Your task to perform on an android device: Play the last video I watched on Youtube Image 0: 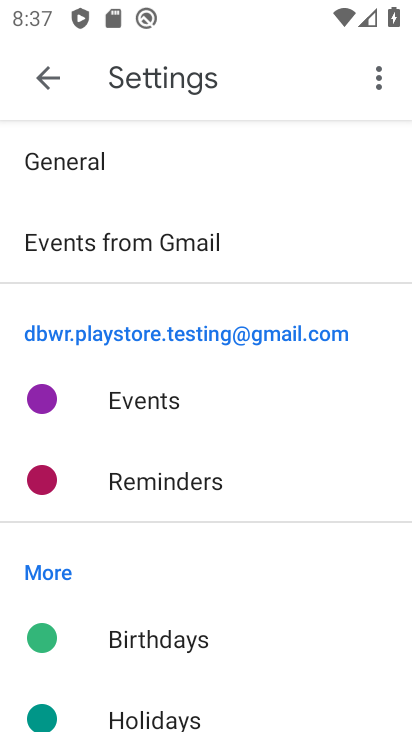
Step 0: press back button
Your task to perform on an android device: Play the last video I watched on Youtube Image 1: 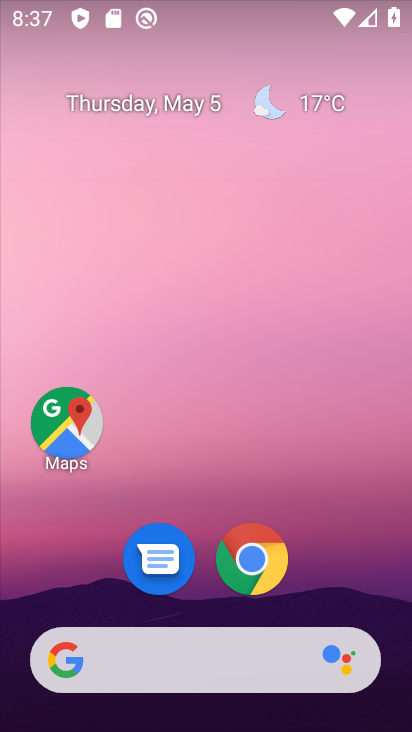
Step 1: drag from (238, 506) to (293, 47)
Your task to perform on an android device: Play the last video I watched on Youtube Image 2: 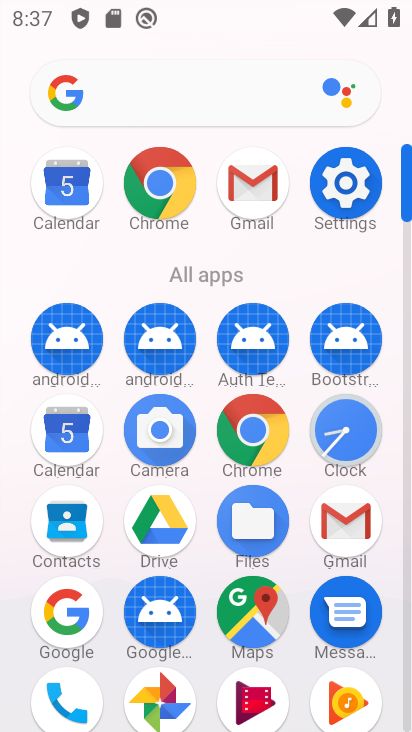
Step 2: drag from (162, 625) to (250, 38)
Your task to perform on an android device: Play the last video I watched on Youtube Image 3: 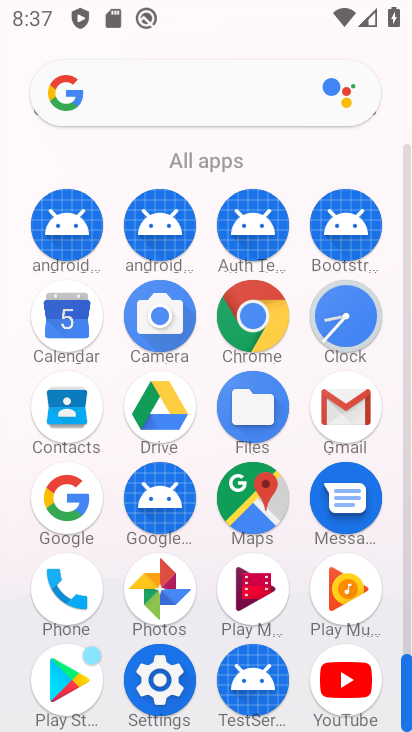
Step 3: click (354, 677)
Your task to perform on an android device: Play the last video I watched on Youtube Image 4: 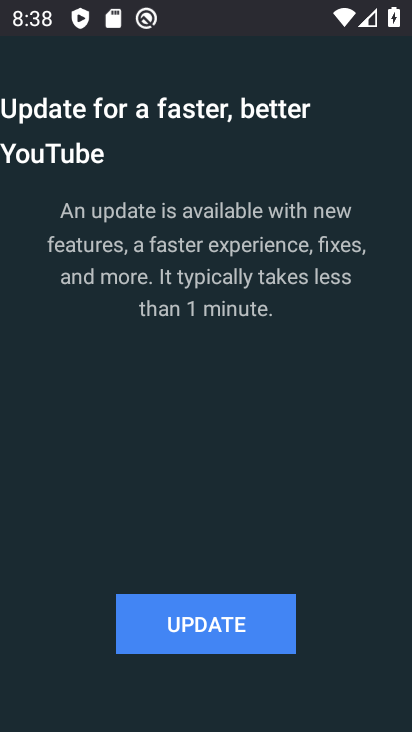
Step 4: click (220, 633)
Your task to perform on an android device: Play the last video I watched on Youtube Image 5: 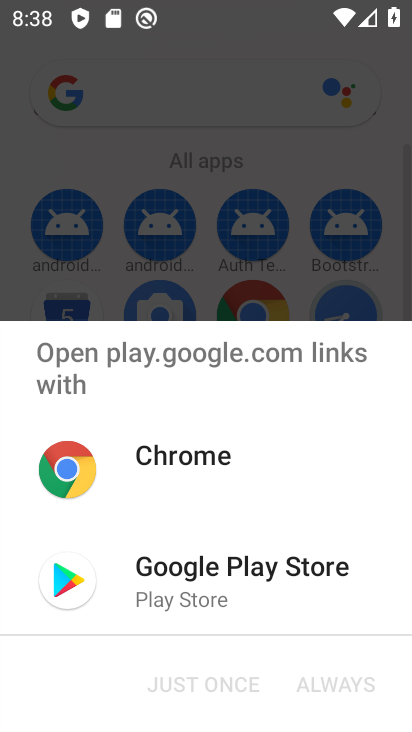
Step 5: click (210, 564)
Your task to perform on an android device: Play the last video I watched on Youtube Image 6: 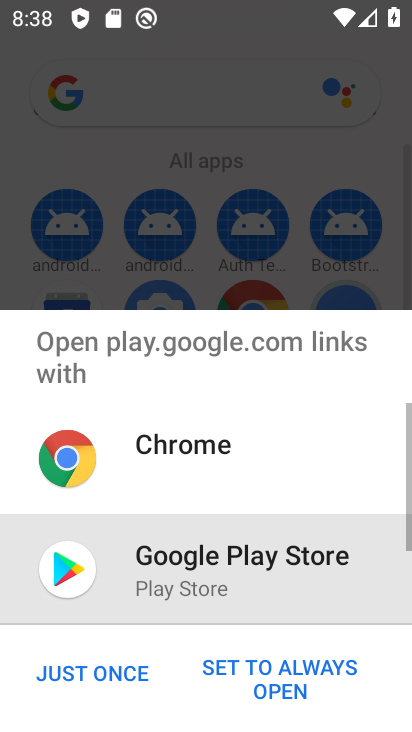
Step 6: click (86, 673)
Your task to perform on an android device: Play the last video I watched on Youtube Image 7: 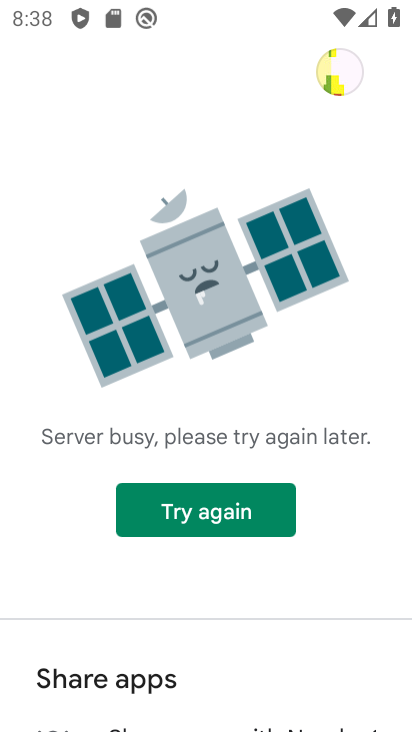
Step 7: click (223, 520)
Your task to perform on an android device: Play the last video I watched on Youtube Image 8: 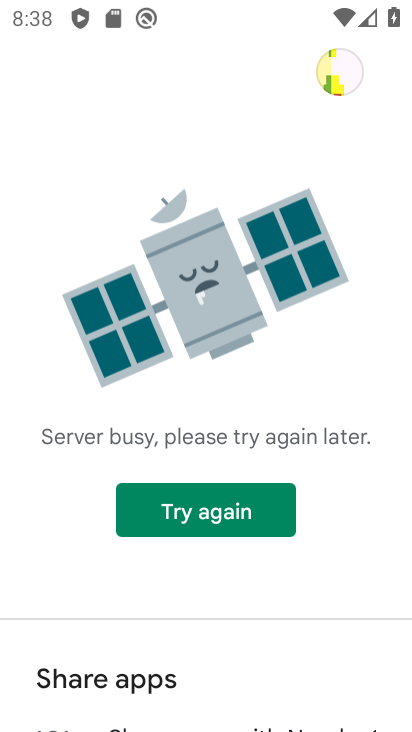
Step 8: click (224, 507)
Your task to perform on an android device: Play the last video I watched on Youtube Image 9: 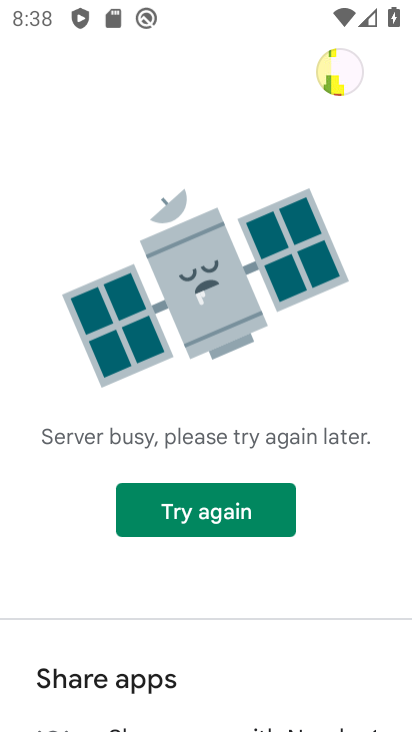
Step 9: task complete